Your task to perform on an android device: Go to calendar. Show me events next week Image 0: 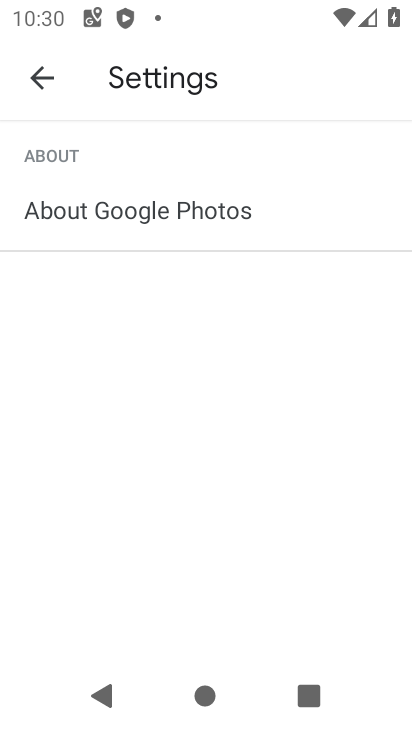
Step 0: press back button
Your task to perform on an android device: Go to calendar. Show me events next week Image 1: 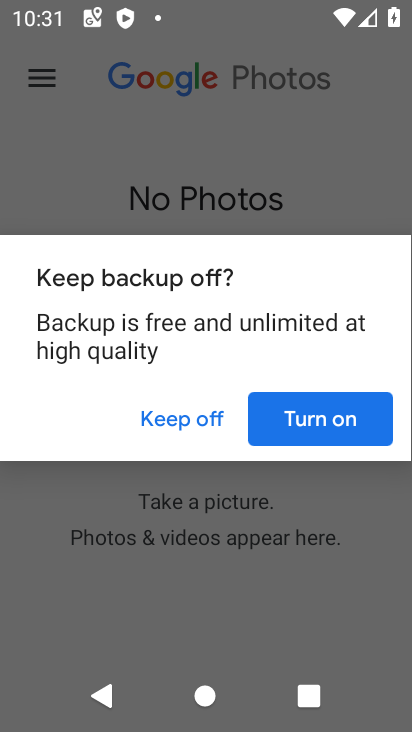
Step 1: press back button
Your task to perform on an android device: Go to calendar. Show me events next week Image 2: 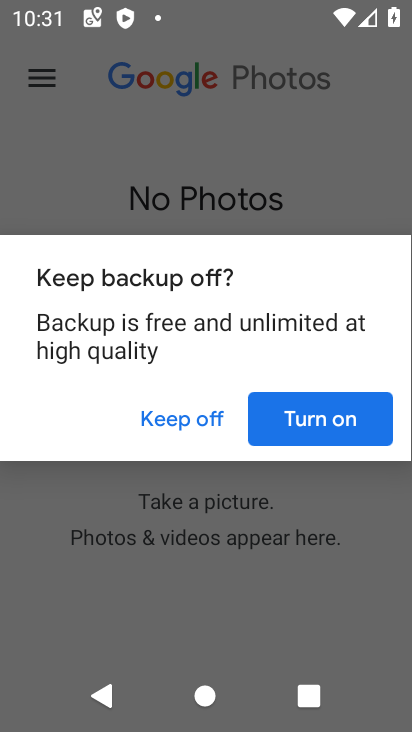
Step 2: press back button
Your task to perform on an android device: Go to calendar. Show me events next week Image 3: 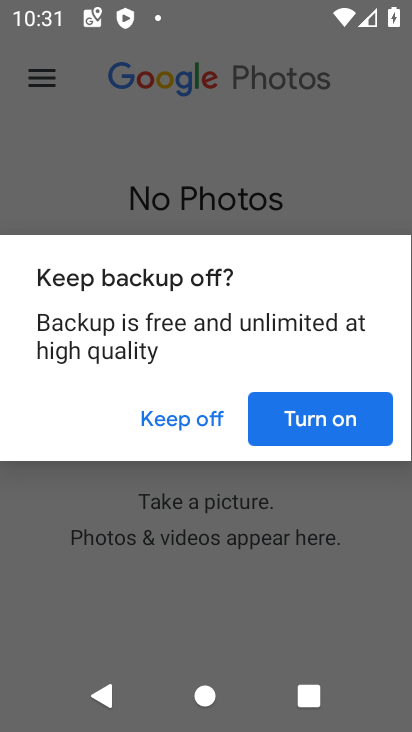
Step 3: press home button
Your task to perform on an android device: Go to calendar. Show me events next week Image 4: 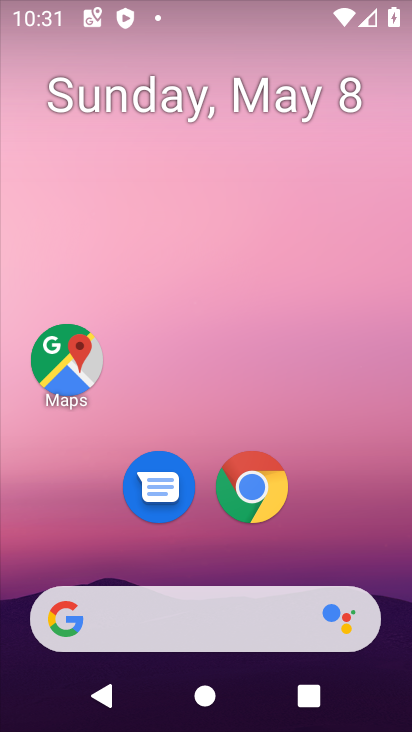
Step 4: drag from (182, 588) to (332, 28)
Your task to perform on an android device: Go to calendar. Show me events next week Image 5: 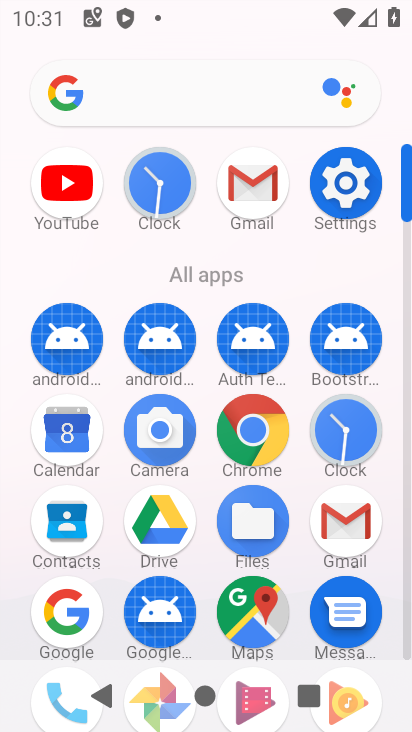
Step 5: click (75, 442)
Your task to perform on an android device: Go to calendar. Show me events next week Image 6: 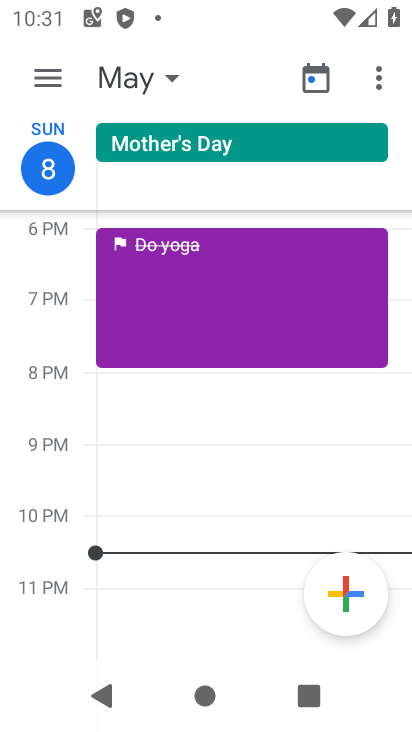
Step 6: click (172, 80)
Your task to perform on an android device: Go to calendar. Show me events next week Image 7: 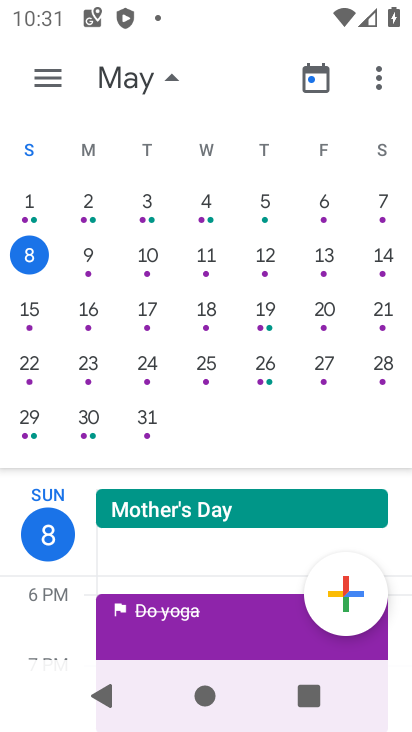
Step 7: click (61, 76)
Your task to perform on an android device: Go to calendar. Show me events next week Image 8: 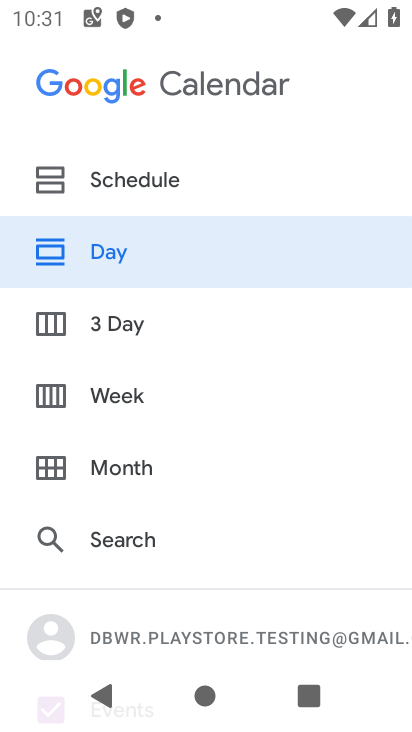
Step 8: click (108, 173)
Your task to perform on an android device: Go to calendar. Show me events next week Image 9: 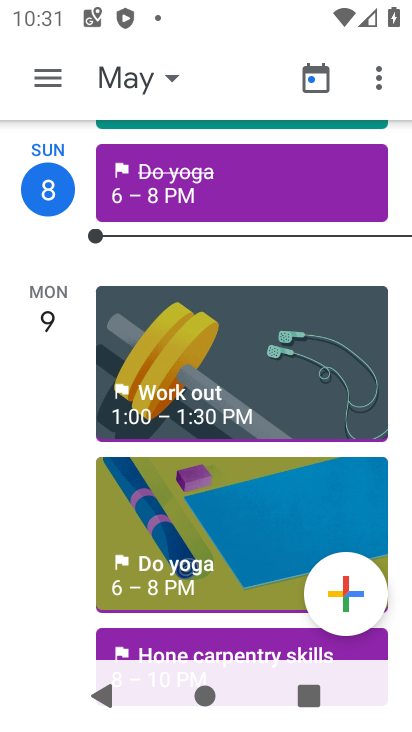
Step 9: click (166, 73)
Your task to perform on an android device: Go to calendar. Show me events next week Image 10: 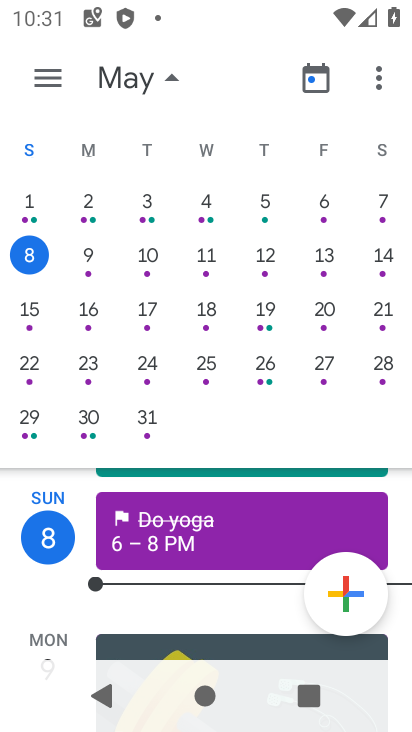
Step 10: click (94, 314)
Your task to perform on an android device: Go to calendar. Show me events next week Image 11: 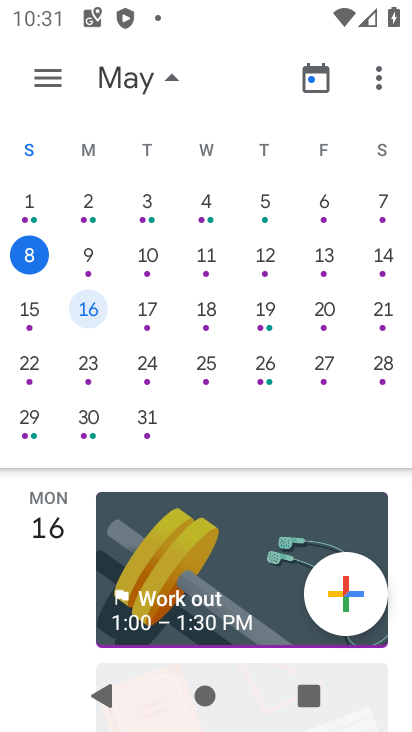
Step 11: drag from (231, 611) to (323, 30)
Your task to perform on an android device: Go to calendar. Show me events next week Image 12: 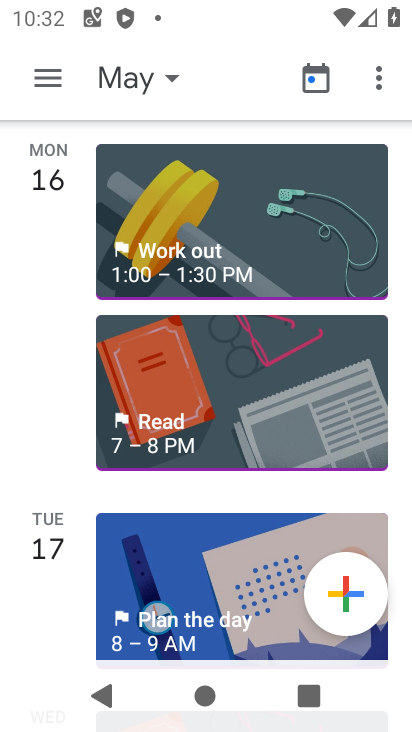
Step 12: drag from (208, 524) to (280, 100)
Your task to perform on an android device: Go to calendar. Show me events next week Image 13: 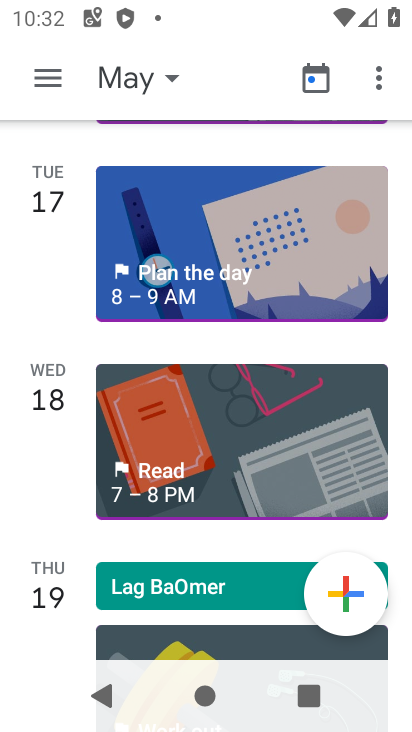
Step 13: drag from (187, 571) to (265, 97)
Your task to perform on an android device: Go to calendar. Show me events next week Image 14: 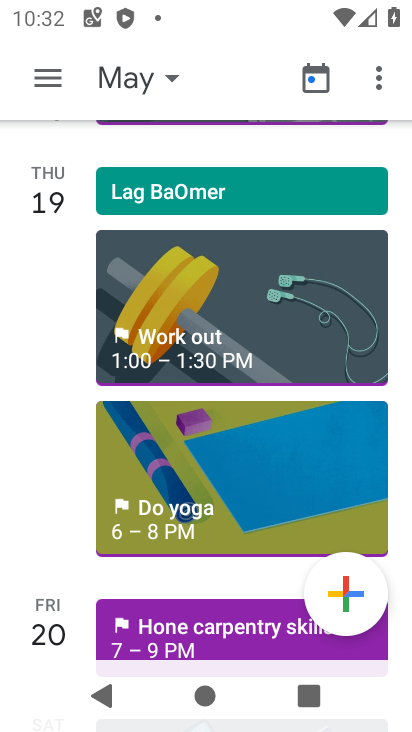
Step 14: click (170, 184)
Your task to perform on an android device: Go to calendar. Show me events next week Image 15: 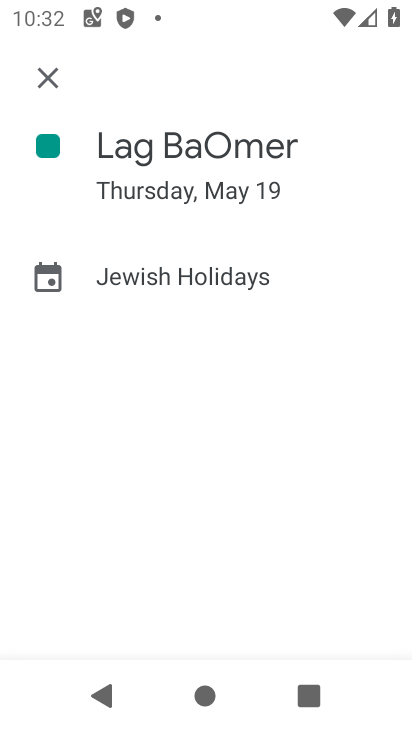
Step 15: task complete